Your task to perform on an android device: turn off location Image 0: 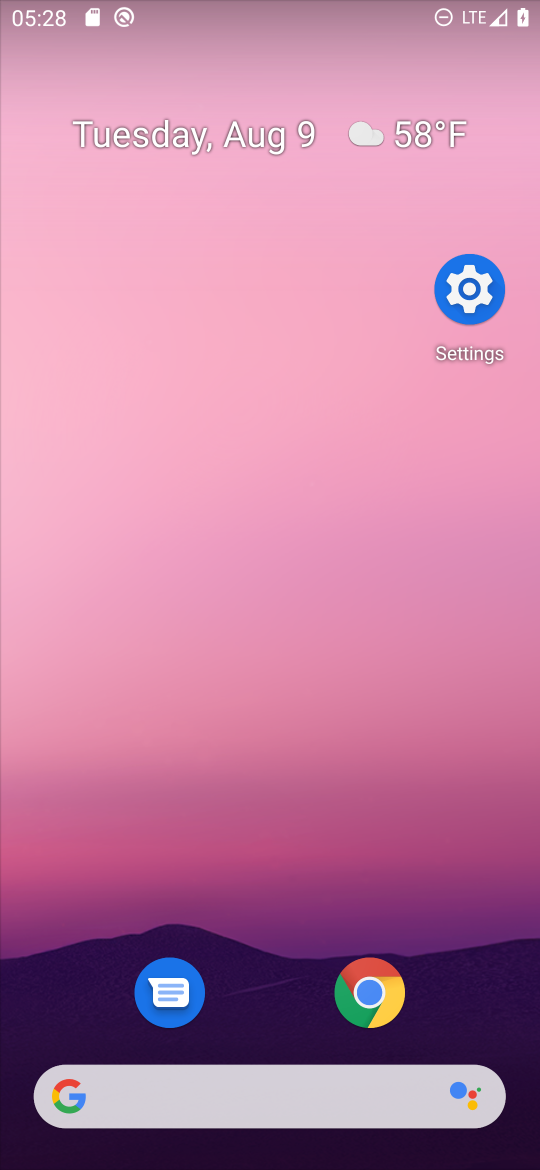
Step 0: drag from (266, 1088) to (247, 31)
Your task to perform on an android device: turn off location Image 1: 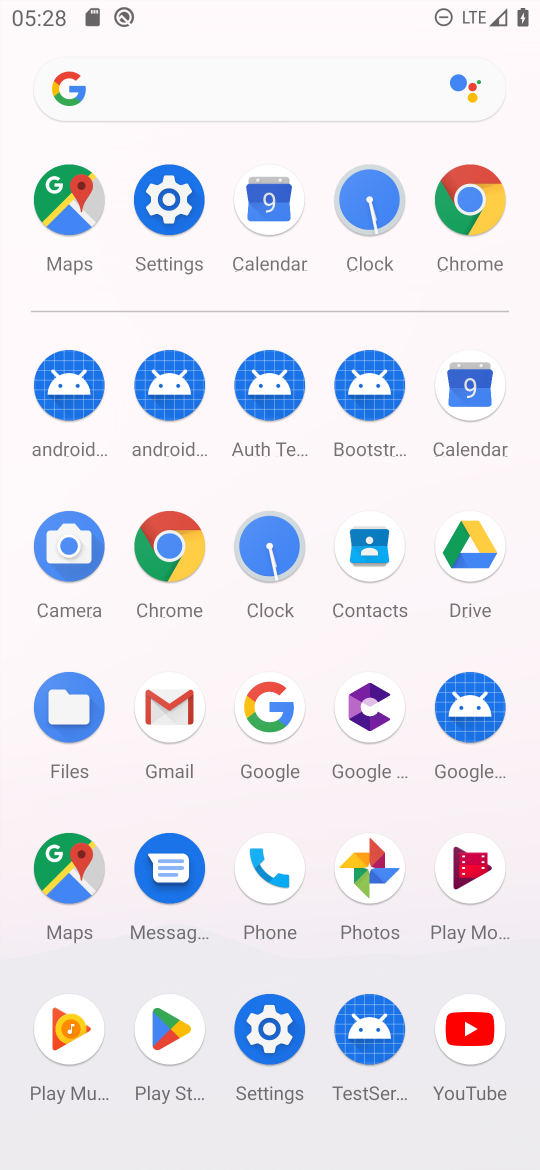
Step 1: click (185, 212)
Your task to perform on an android device: turn off location Image 2: 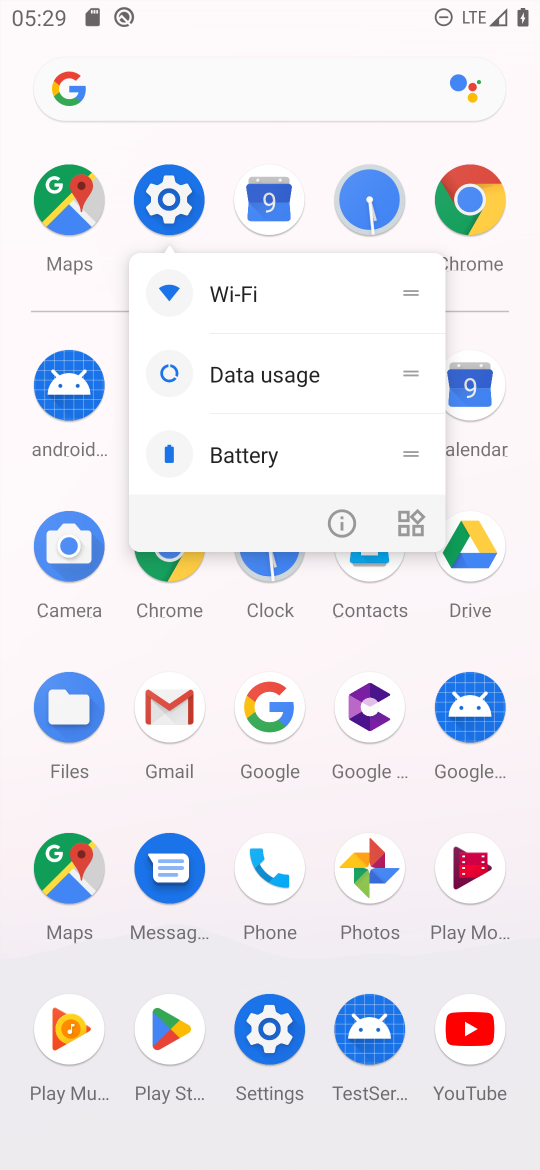
Step 2: click (153, 196)
Your task to perform on an android device: turn off location Image 3: 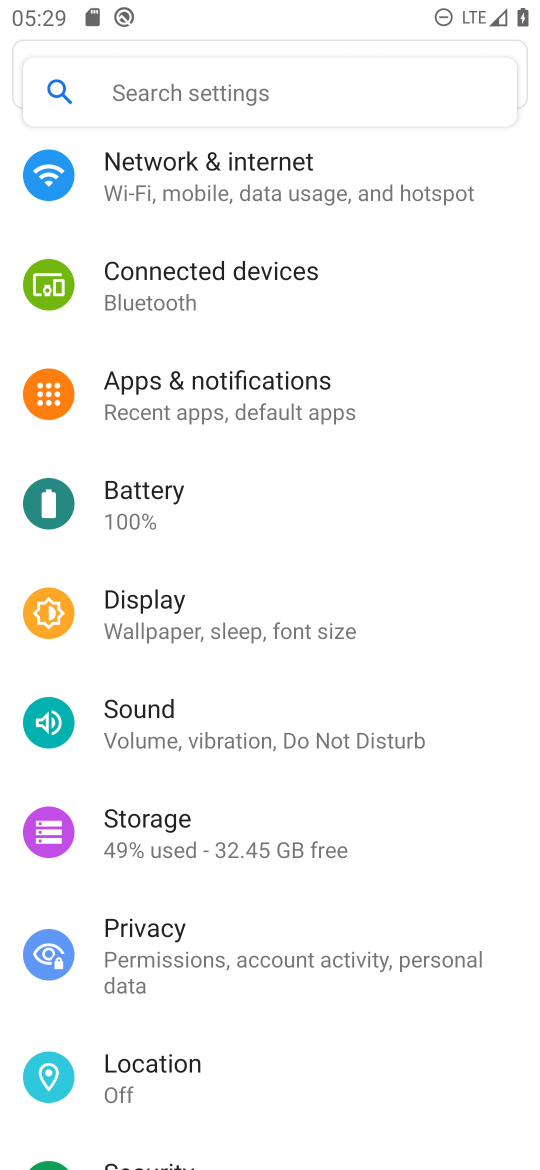
Step 3: click (223, 1076)
Your task to perform on an android device: turn off location Image 4: 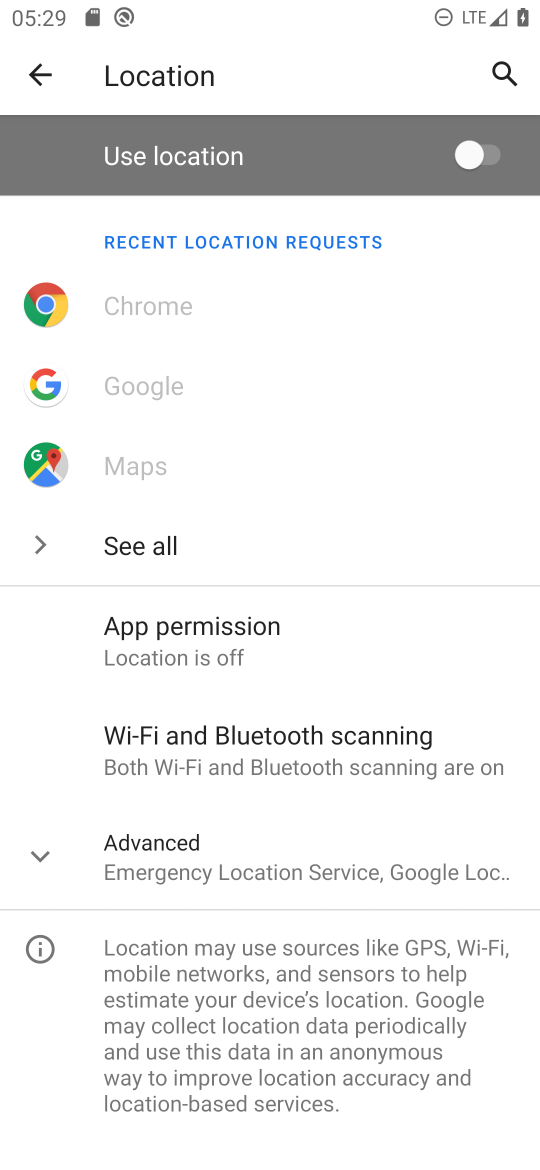
Step 4: task complete